Your task to perform on an android device: What's the US dollar exchange rate against the Euro? Image 0: 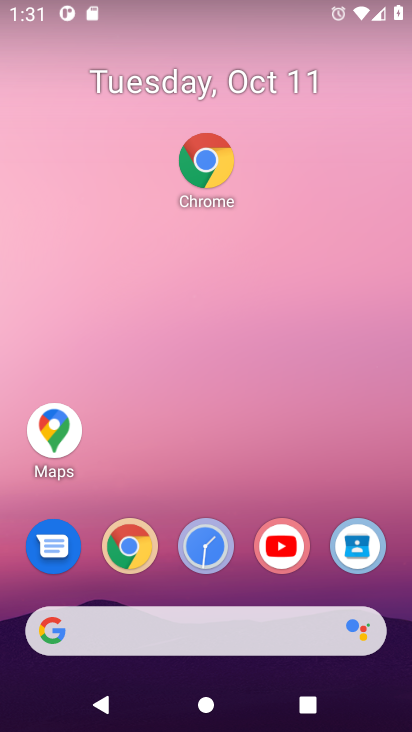
Step 0: click (123, 530)
Your task to perform on an android device: What's the US dollar exchange rate against the Euro? Image 1: 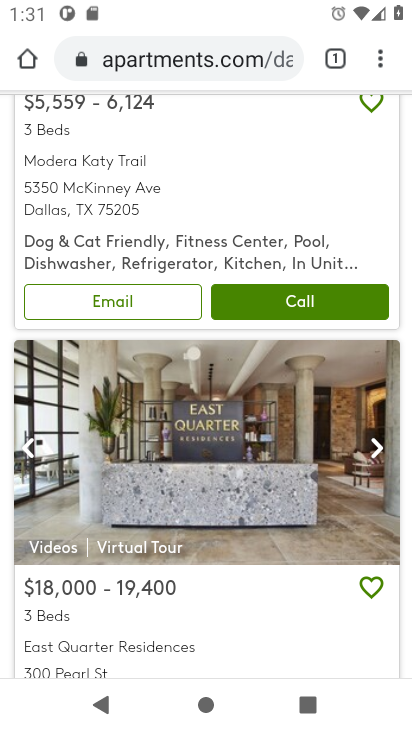
Step 1: click (151, 50)
Your task to perform on an android device: What's the US dollar exchange rate against the Euro? Image 2: 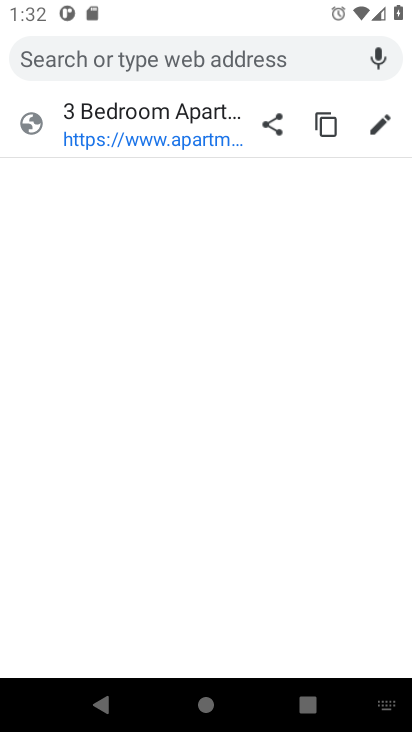
Step 2: type "US dollar exchange rate against the Euro"
Your task to perform on an android device: What's the US dollar exchange rate against the Euro? Image 3: 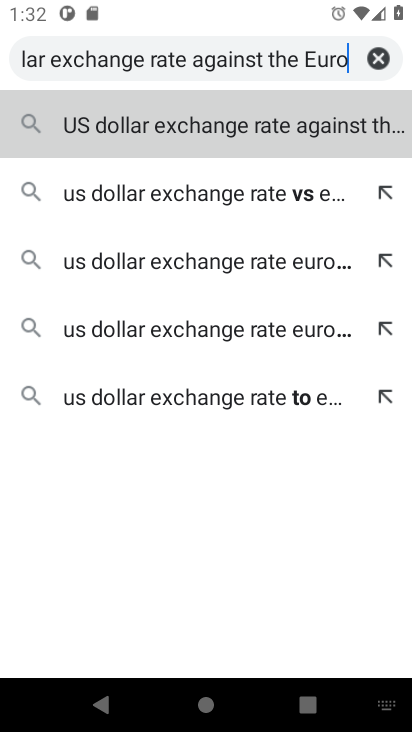
Step 3: press enter
Your task to perform on an android device: What's the US dollar exchange rate against the Euro? Image 4: 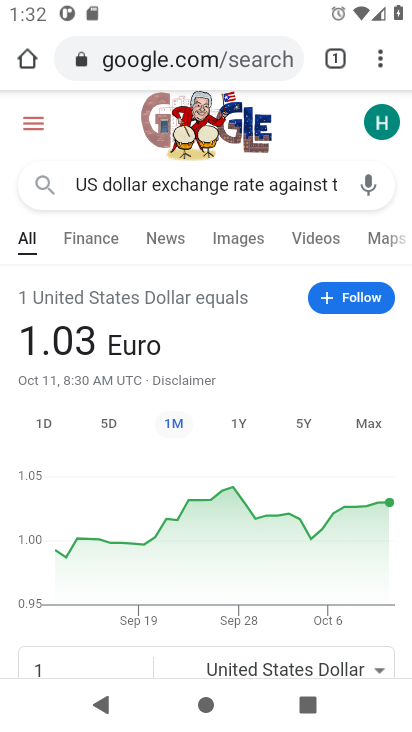
Step 4: task complete